Your task to perform on an android device: check out phone information Image 0: 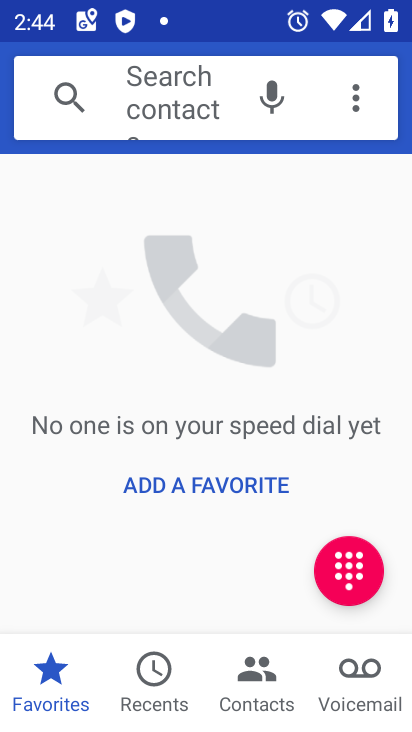
Step 0: press home button
Your task to perform on an android device: check out phone information Image 1: 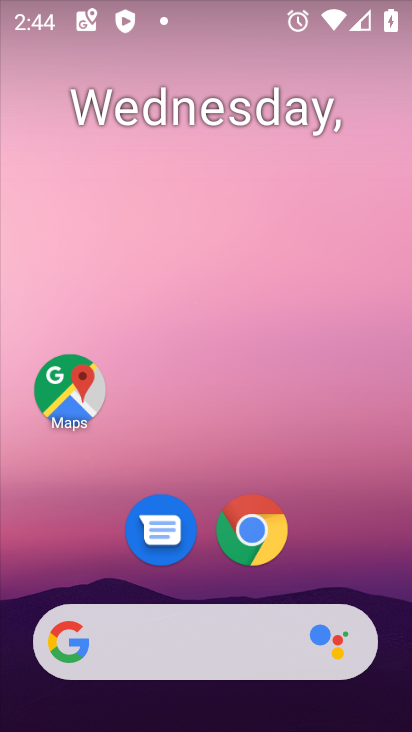
Step 1: drag from (215, 623) to (136, 15)
Your task to perform on an android device: check out phone information Image 2: 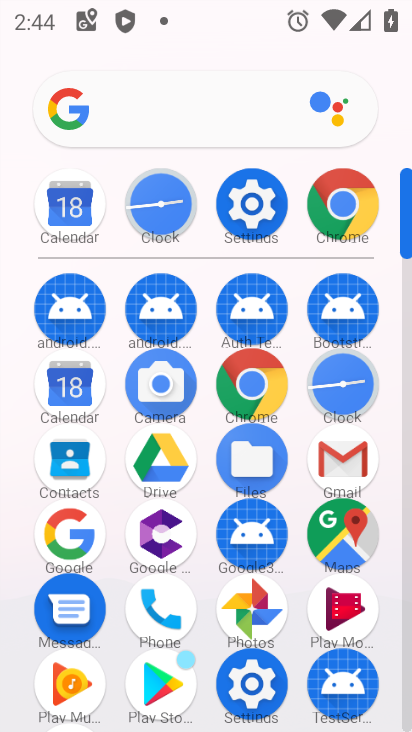
Step 2: click (263, 212)
Your task to perform on an android device: check out phone information Image 3: 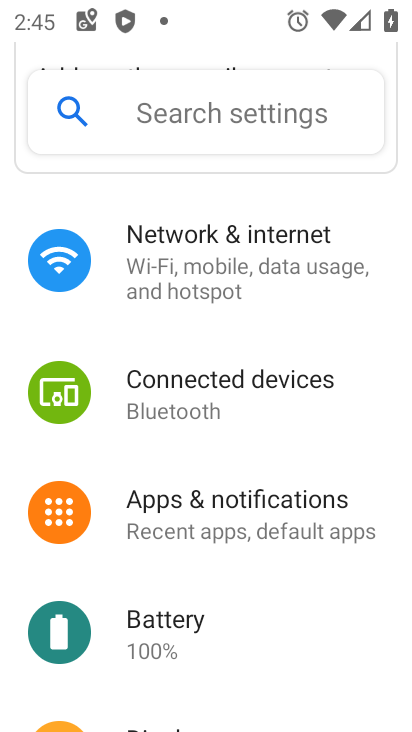
Step 3: drag from (180, 527) to (305, 83)
Your task to perform on an android device: check out phone information Image 4: 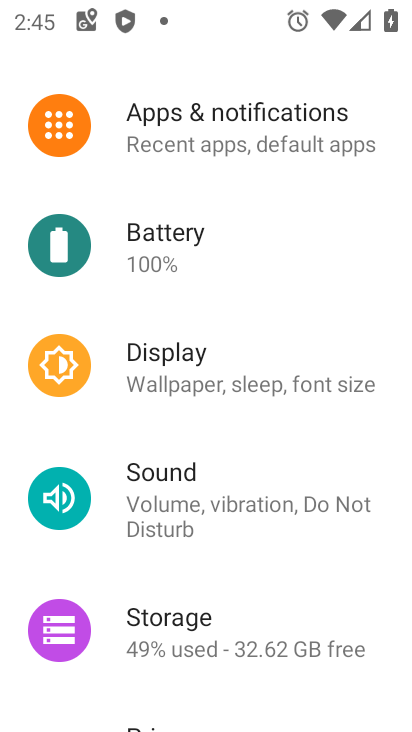
Step 4: drag from (230, 664) to (309, 121)
Your task to perform on an android device: check out phone information Image 5: 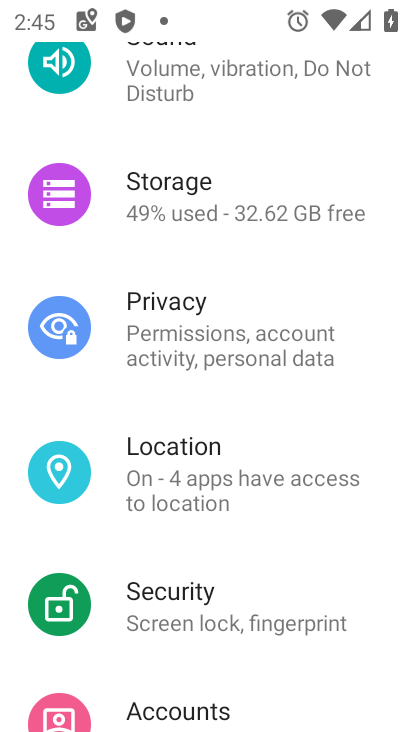
Step 5: drag from (304, 610) to (379, 136)
Your task to perform on an android device: check out phone information Image 6: 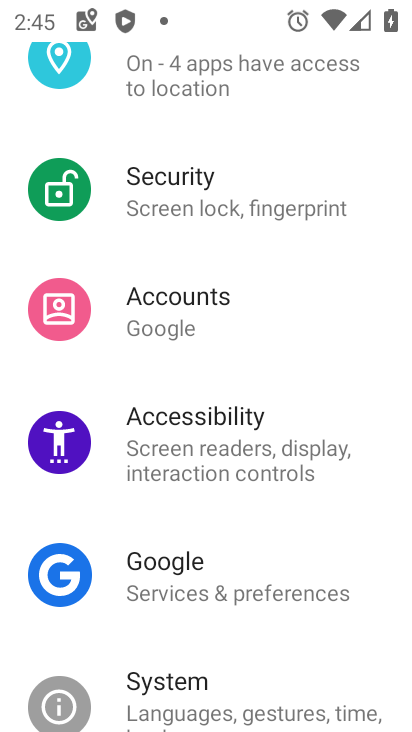
Step 6: drag from (284, 267) to (233, 0)
Your task to perform on an android device: check out phone information Image 7: 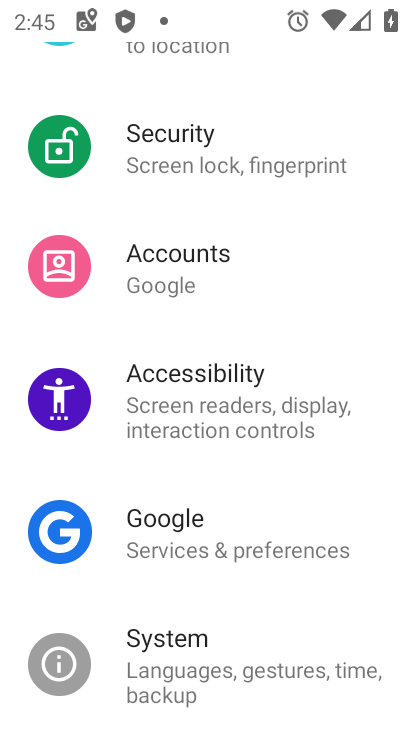
Step 7: drag from (295, 646) to (315, 32)
Your task to perform on an android device: check out phone information Image 8: 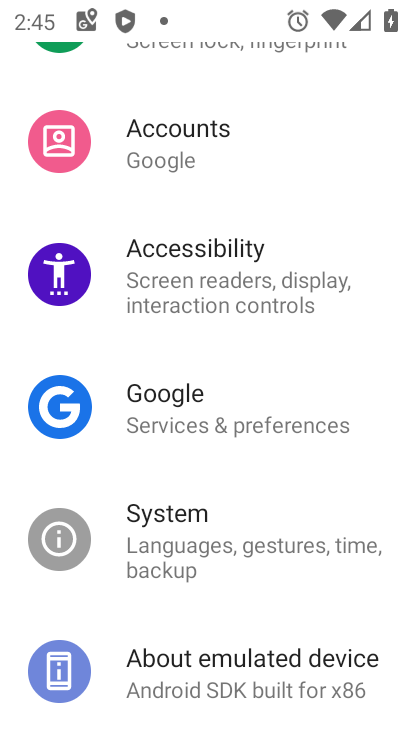
Step 8: click (313, 675)
Your task to perform on an android device: check out phone information Image 9: 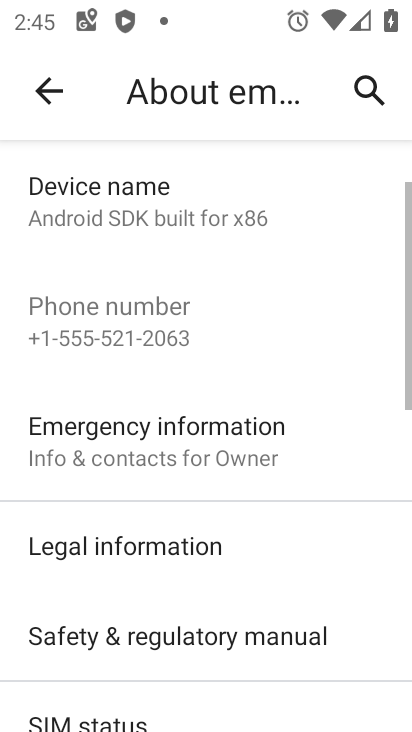
Step 9: task complete